Your task to perform on an android device: change the upload size in google photos Image 0: 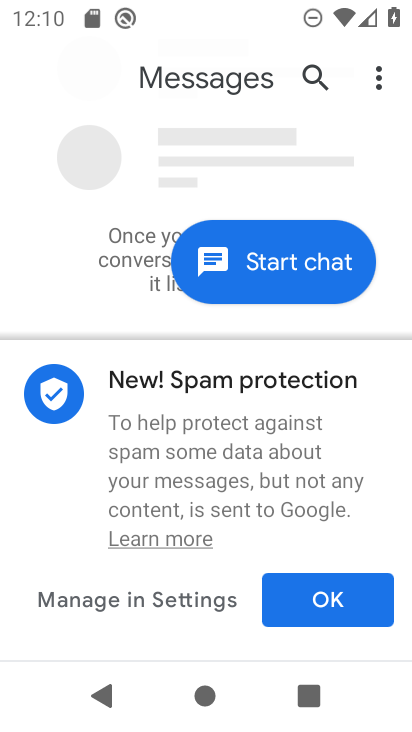
Step 0: press home button
Your task to perform on an android device: change the upload size in google photos Image 1: 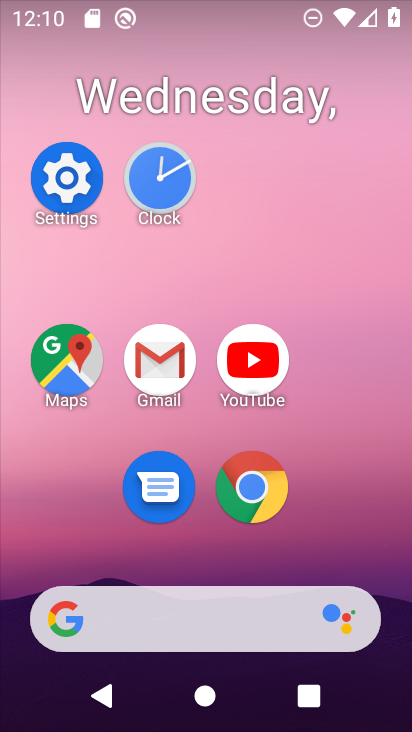
Step 1: drag from (334, 535) to (290, 76)
Your task to perform on an android device: change the upload size in google photos Image 2: 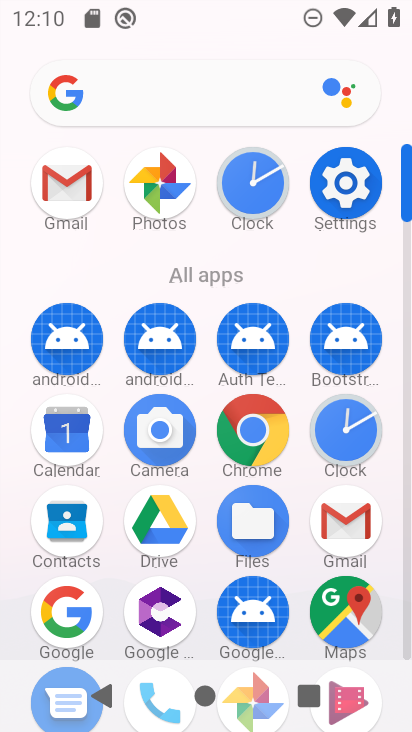
Step 2: drag from (250, 574) to (210, 169)
Your task to perform on an android device: change the upload size in google photos Image 3: 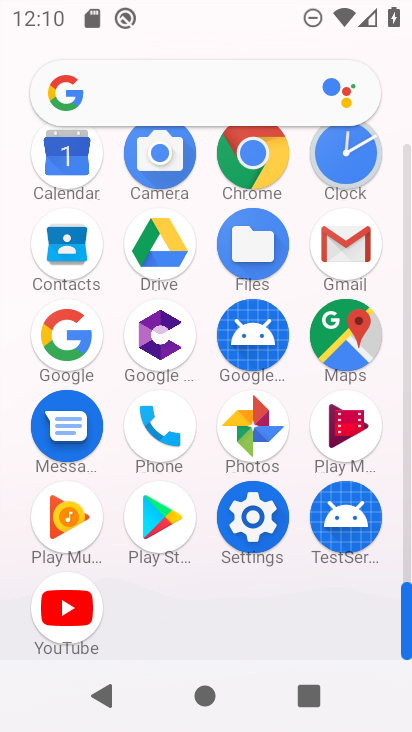
Step 3: drag from (259, 425) to (324, 343)
Your task to perform on an android device: change the upload size in google photos Image 4: 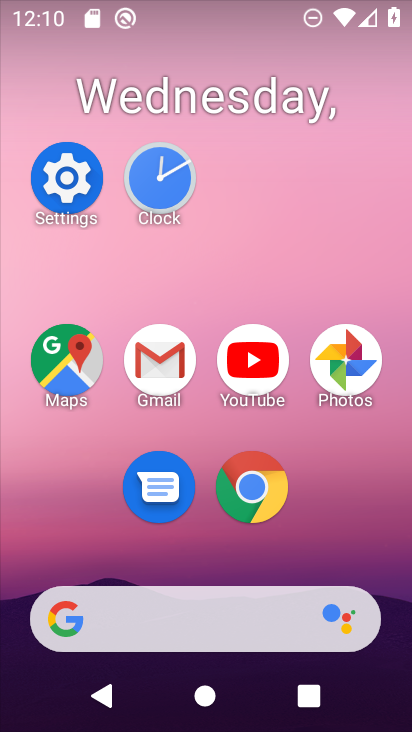
Step 4: click (348, 387)
Your task to perform on an android device: change the upload size in google photos Image 5: 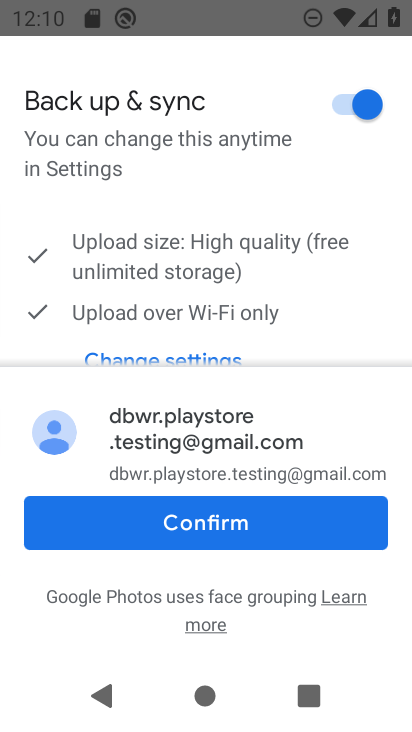
Step 5: click (256, 533)
Your task to perform on an android device: change the upload size in google photos Image 6: 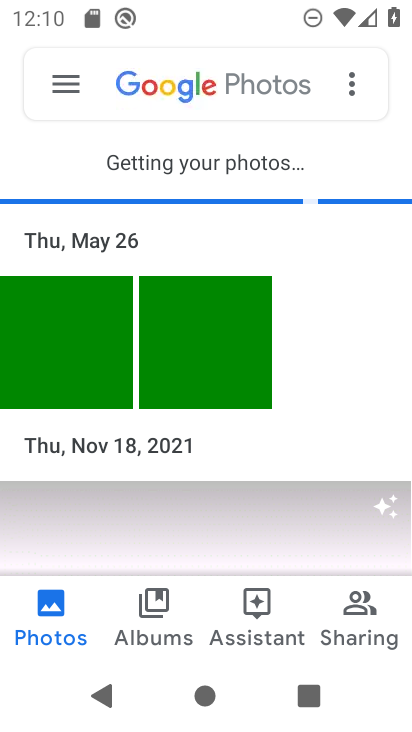
Step 6: click (80, 94)
Your task to perform on an android device: change the upload size in google photos Image 7: 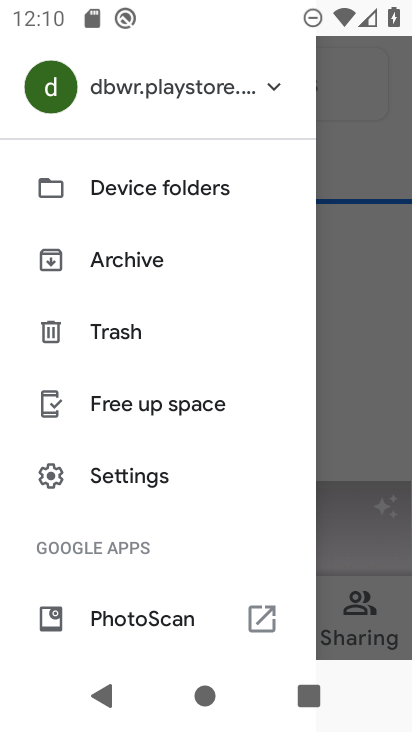
Step 7: click (207, 475)
Your task to perform on an android device: change the upload size in google photos Image 8: 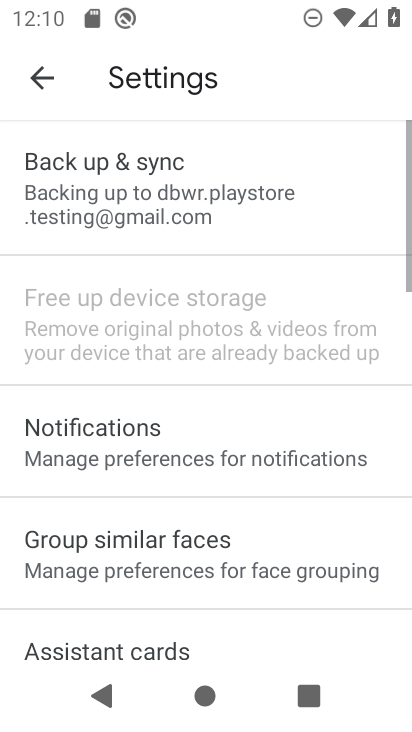
Step 8: drag from (207, 475) to (247, 114)
Your task to perform on an android device: change the upload size in google photos Image 9: 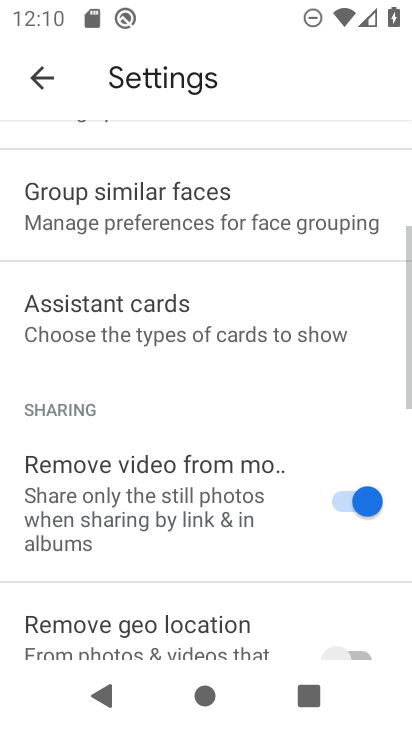
Step 9: drag from (274, 187) to (284, 703)
Your task to perform on an android device: change the upload size in google photos Image 10: 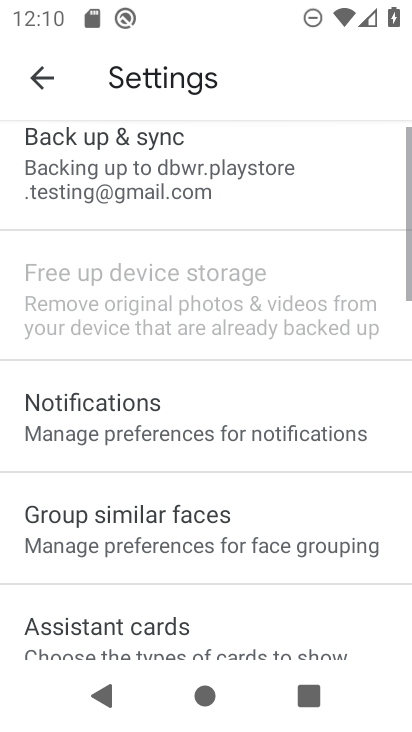
Step 10: click (194, 191)
Your task to perform on an android device: change the upload size in google photos Image 11: 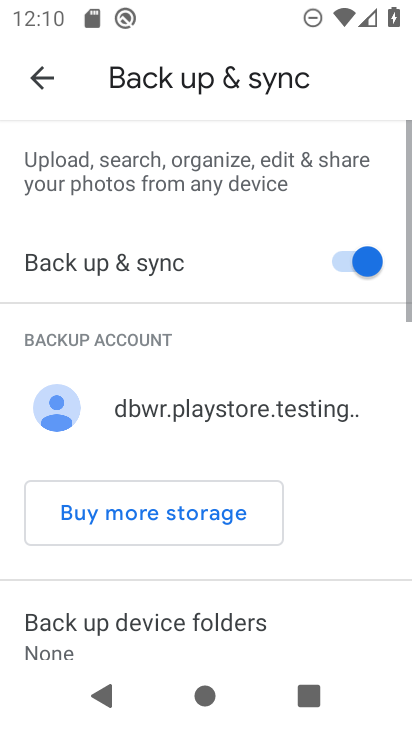
Step 11: drag from (202, 516) to (256, 160)
Your task to perform on an android device: change the upload size in google photos Image 12: 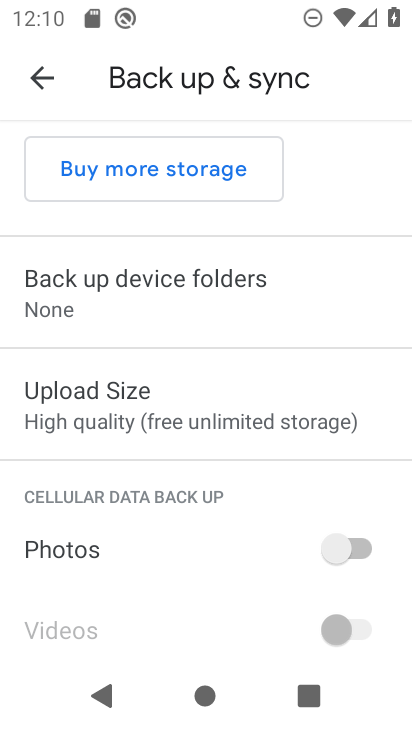
Step 12: click (219, 413)
Your task to perform on an android device: change the upload size in google photos Image 13: 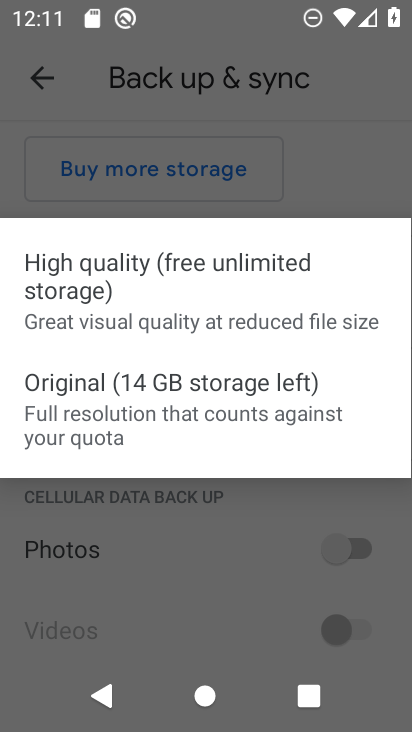
Step 13: click (282, 375)
Your task to perform on an android device: change the upload size in google photos Image 14: 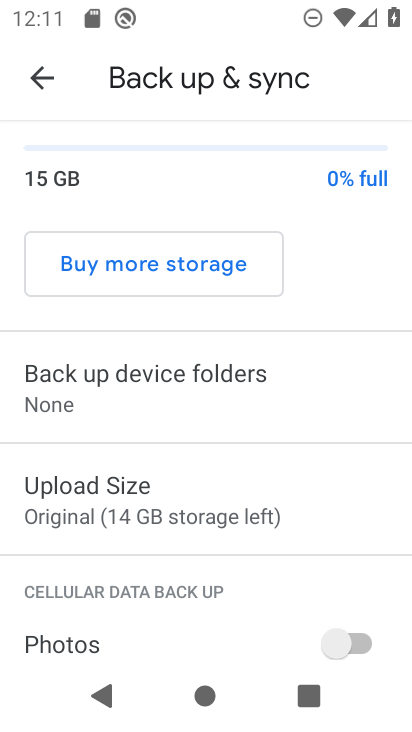
Step 14: task complete